Your task to perform on an android device: Search for Mexican restaurants on Maps Image 0: 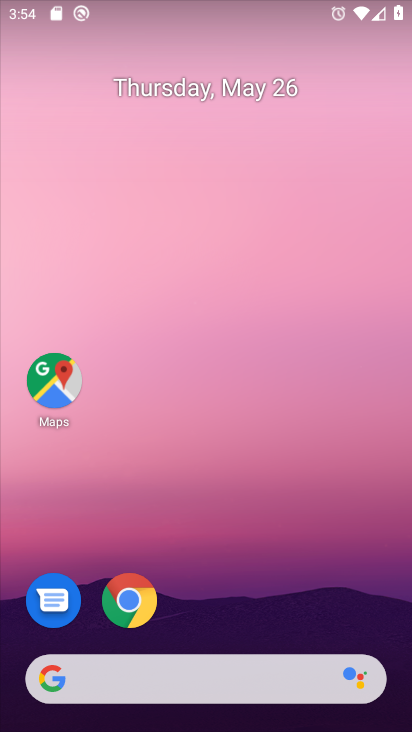
Step 0: drag from (212, 603) to (212, 226)
Your task to perform on an android device: Search for Mexican restaurants on Maps Image 1: 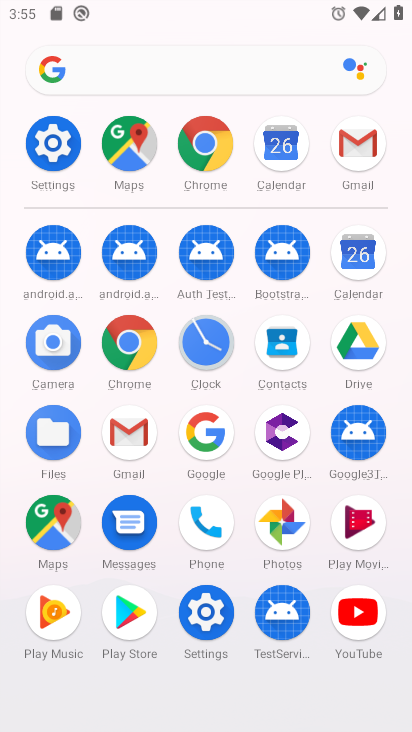
Step 1: click (58, 539)
Your task to perform on an android device: Search for Mexican restaurants on Maps Image 2: 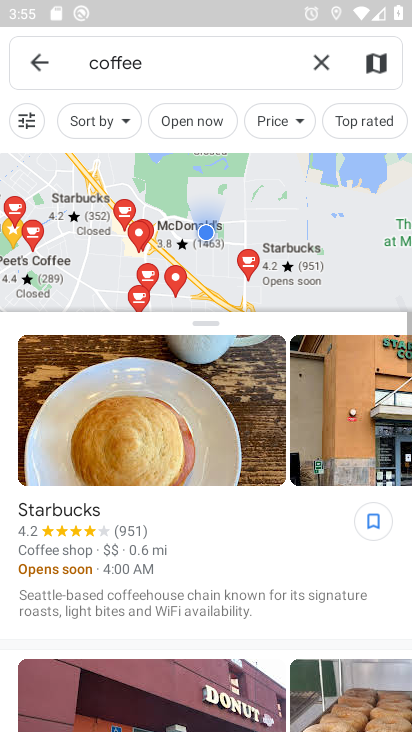
Step 2: click (327, 52)
Your task to perform on an android device: Search for Mexican restaurants on Maps Image 3: 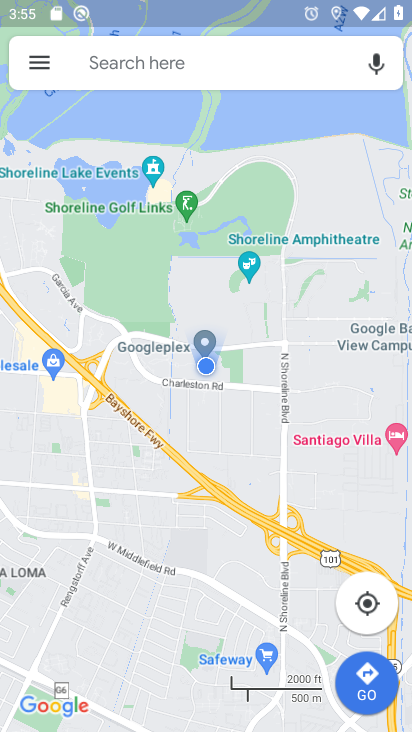
Step 3: click (108, 59)
Your task to perform on an android device: Search for Mexican restaurants on Maps Image 4: 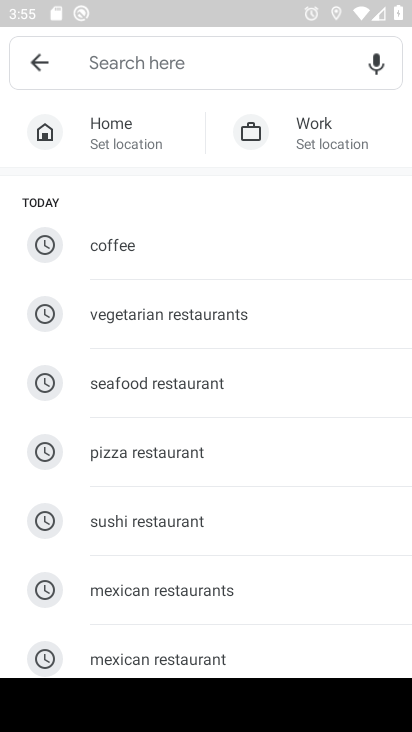
Step 4: type "mexican restaurants"
Your task to perform on an android device: Search for Mexican restaurants on Maps Image 5: 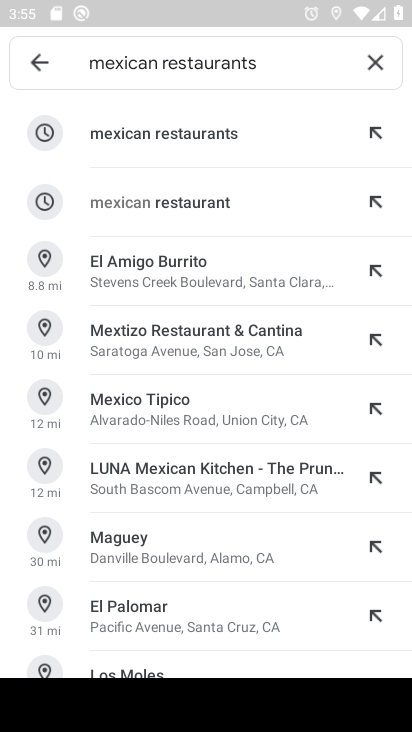
Step 5: click (210, 149)
Your task to perform on an android device: Search for Mexican restaurants on Maps Image 6: 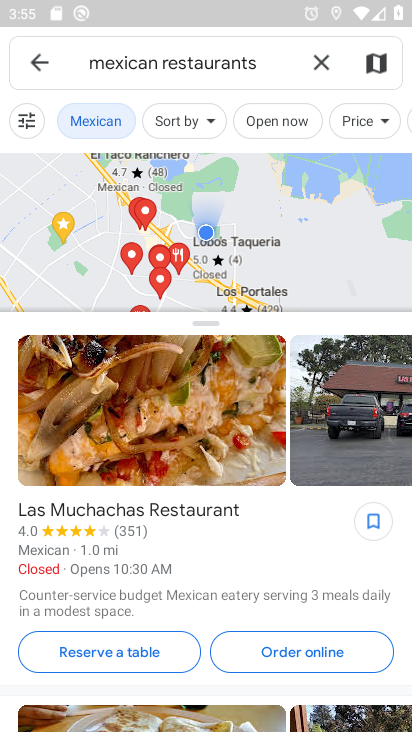
Step 6: task complete